Your task to perform on an android device: set the timer Image 0: 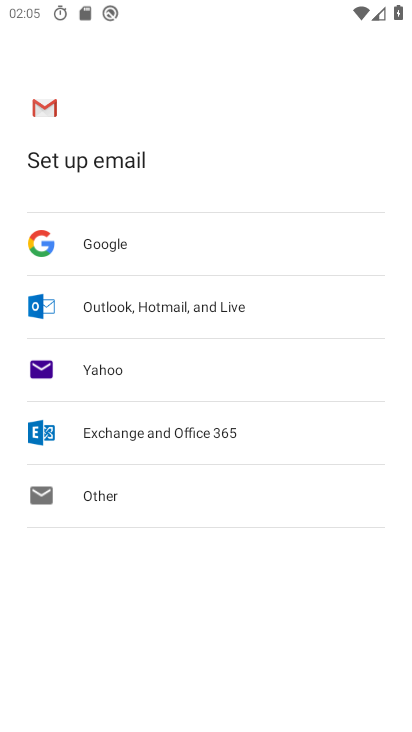
Step 0: press home button
Your task to perform on an android device: set the timer Image 1: 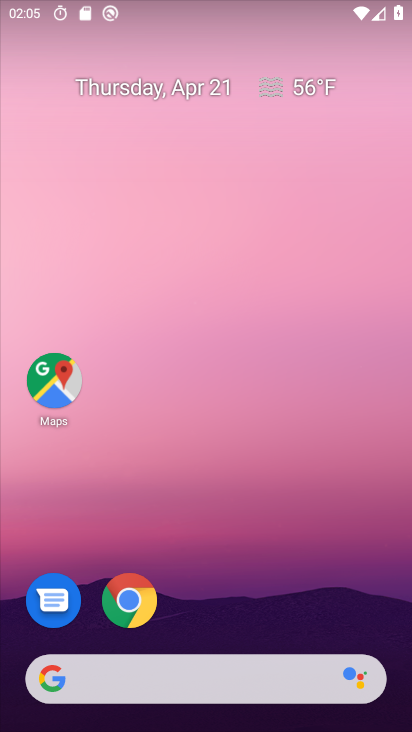
Step 1: drag from (279, 590) to (305, 133)
Your task to perform on an android device: set the timer Image 2: 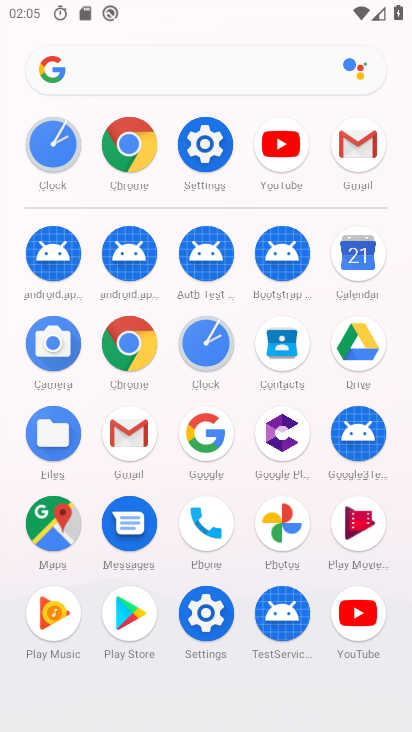
Step 2: click (45, 140)
Your task to perform on an android device: set the timer Image 3: 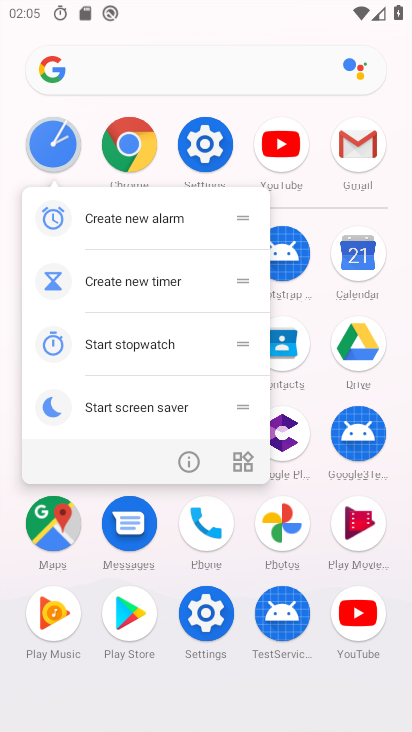
Step 3: click (50, 138)
Your task to perform on an android device: set the timer Image 4: 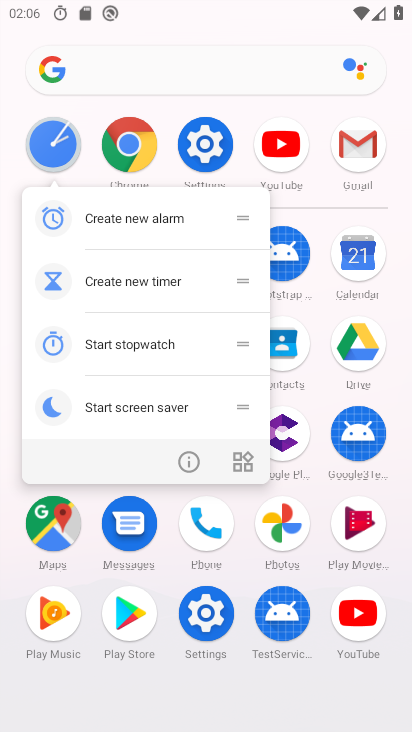
Step 4: click (50, 138)
Your task to perform on an android device: set the timer Image 5: 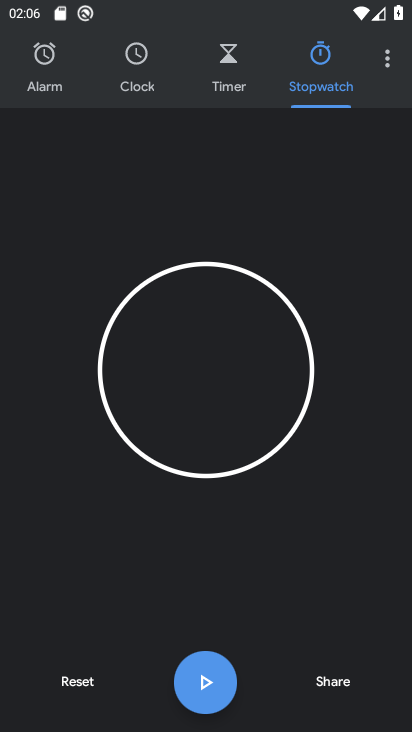
Step 5: click (224, 69)
Your task to perform on an android device: set the timer Image 6: 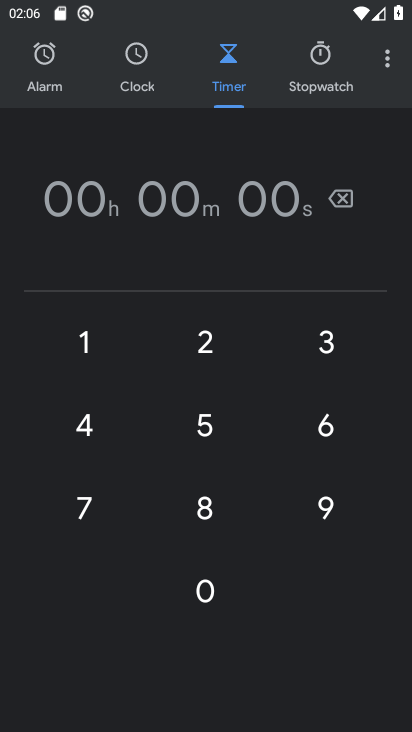
Step 6: click (84, 339)
Your task to perform on an android device: set the timer Image 7: 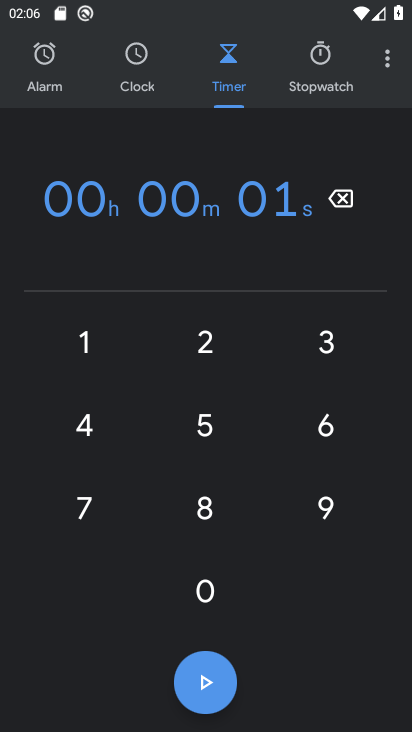
Step 7: click (195, 337)
Your task to perform on an android device: set the timer Image 8: 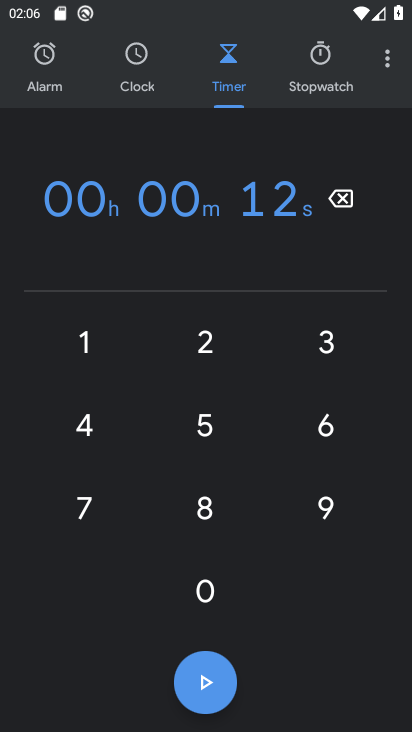
Step 8: task complete